Your task to perform on an android device: Open privacy settings Image 0: 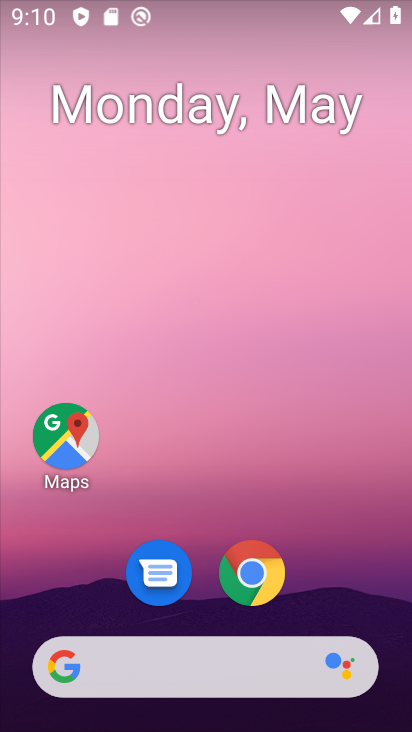
Step 0: drag from (300, 612) to (157, 94)
Your task to perform on an android device: Open privacy settings Image 1: 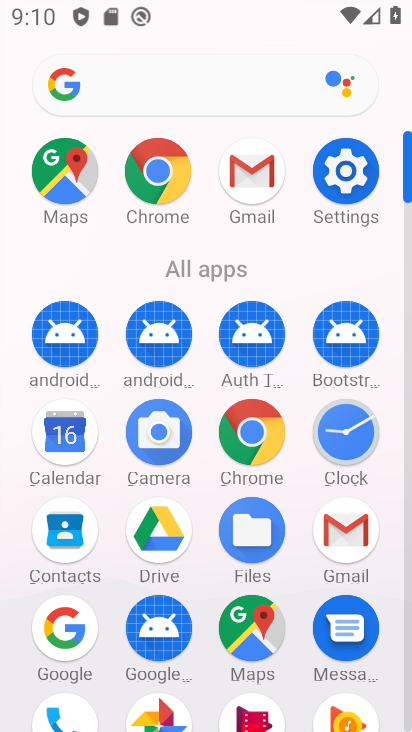
Step 1: click (350, 176)
Your task to perform on an android device: Open privacy settings Image 2: 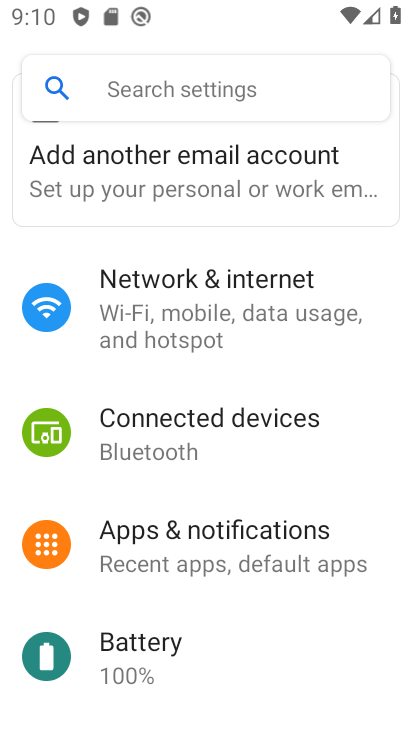
Step 2: drag from (129, 617) to (140, 114)
Your task to perform on an android device: Open privacy settings Image 3: 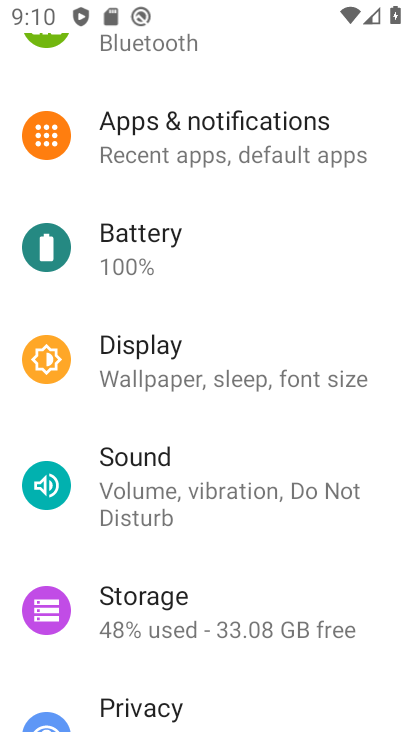
Step 3: drag from (182, 500) to (163, 408)
Your task to perform on an android device: Open privacy settings Image 4: 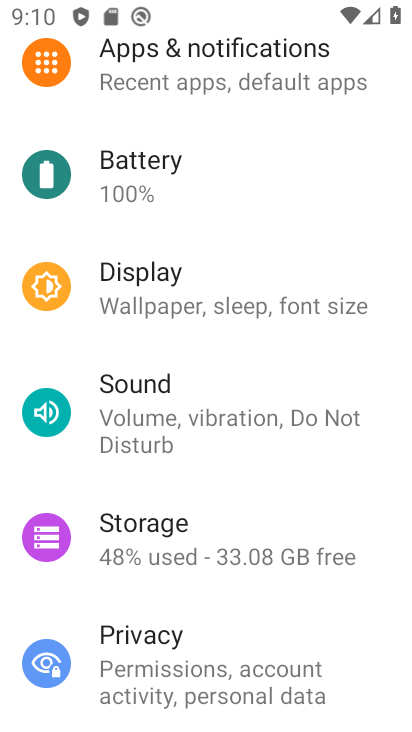
Step 4: click (147, 653)
Your task to perform on an android device: Open privacy settings Image 5: 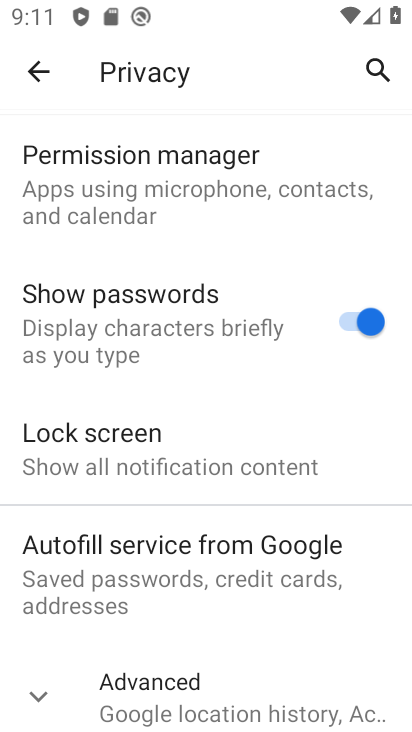
Step 5: task complete